Your task to perform on an android device: turn on wifi Image 0: 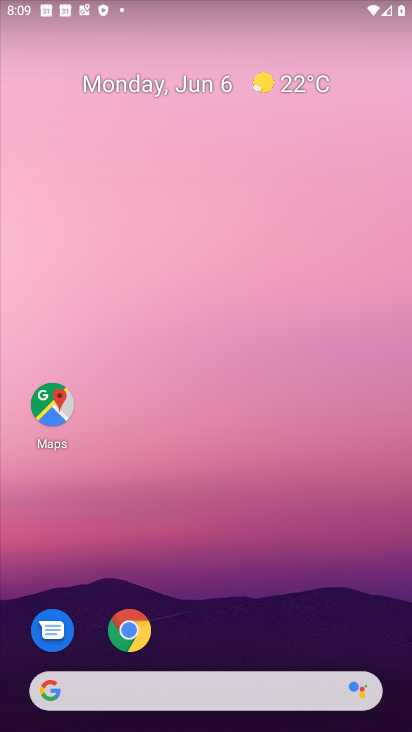
Step 0: click (128, 632)
Your task to perform on an android device: turn on wifi Image 1: 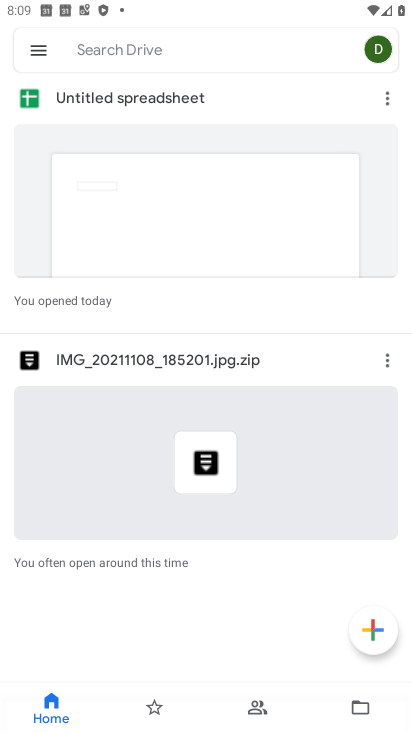
Step 1: task complete